Your task to perform on an android device: change text size in settings app Image 0: 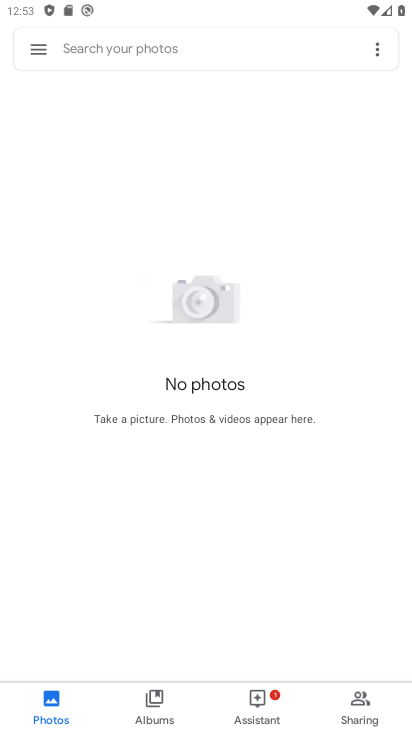
Step 0: press home button
Your task to perform on an android device: change text size in settings app Image 1: 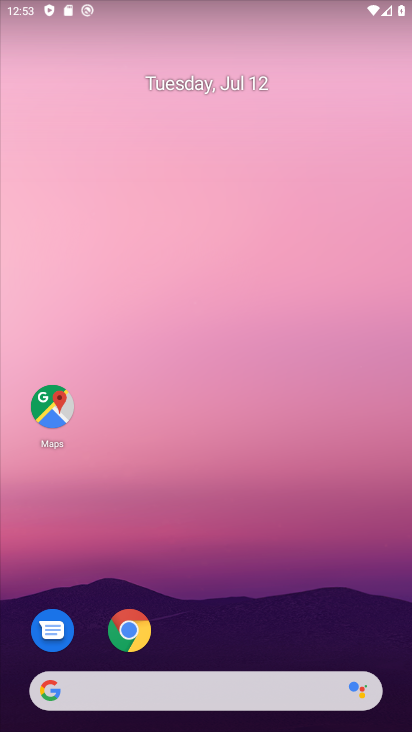
Step 1: drag from (356, 636) to (286, 86)
Your task to perform on an android device: change text size in settings app Image 2: 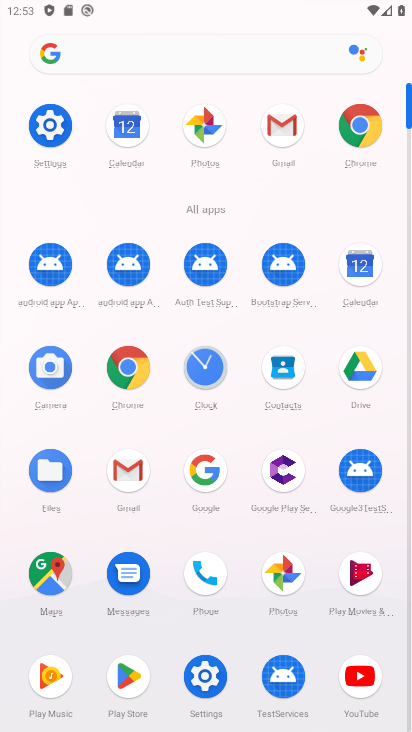
Step 2: click (205, 682)
Your task to perform on an android device: change text size in settings app Image 3: 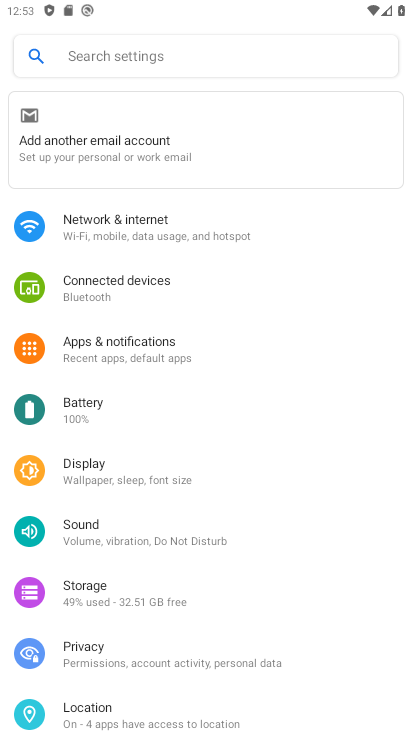
Step 3: click (81, 473)
Your task to perform on an android device: change text size in settings app Image 4: 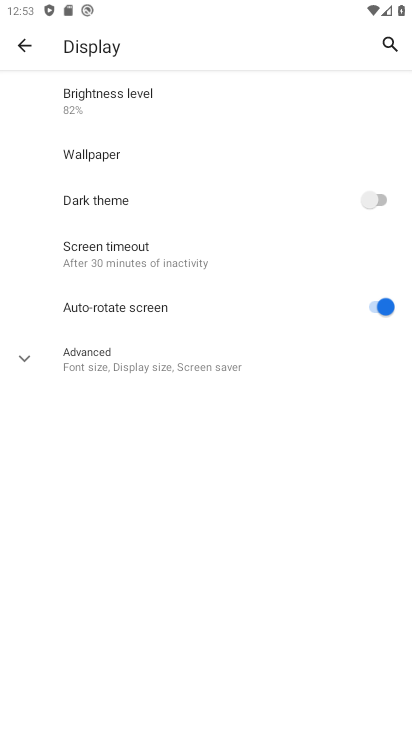
Step 4: click (21, 361)
Your task to perform on an android device: change text size in settings app Image 5: 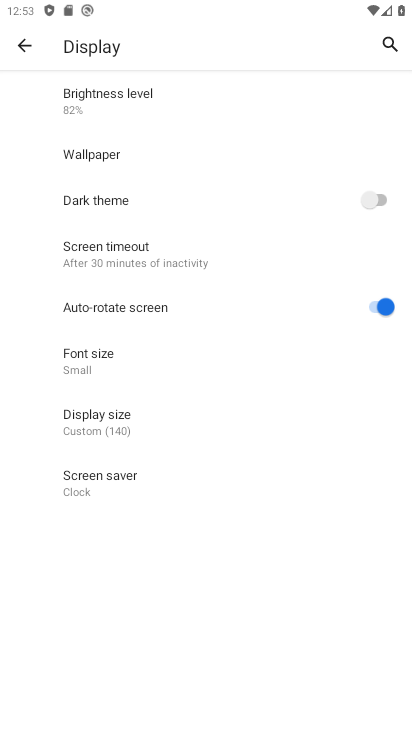
Step 5: click (83, 366)
Your task to perform on an android device: change text size in settings app Image 6: 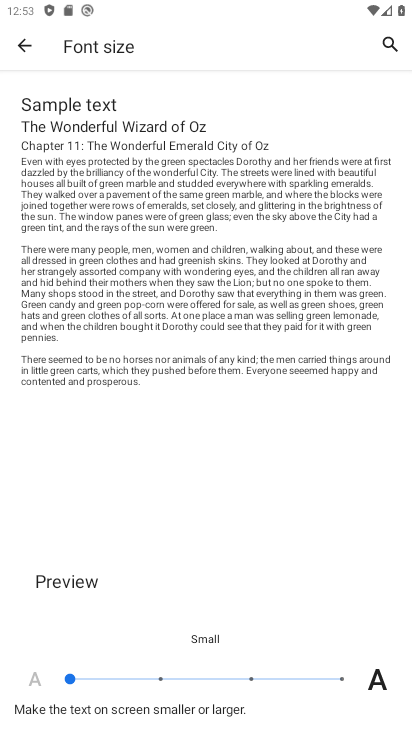
Step 6: click (254, 679)
Your task to perform on an android device: change text size in settings app Image 7: 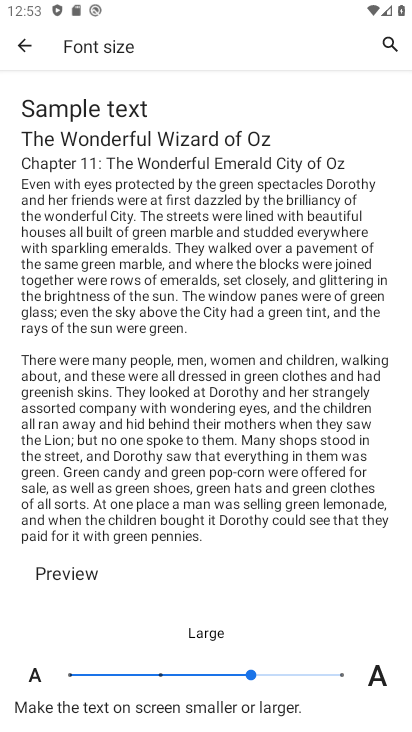
Step 7: task complete